Your task to perform on an android device: Go to Reddit.com Image 0: 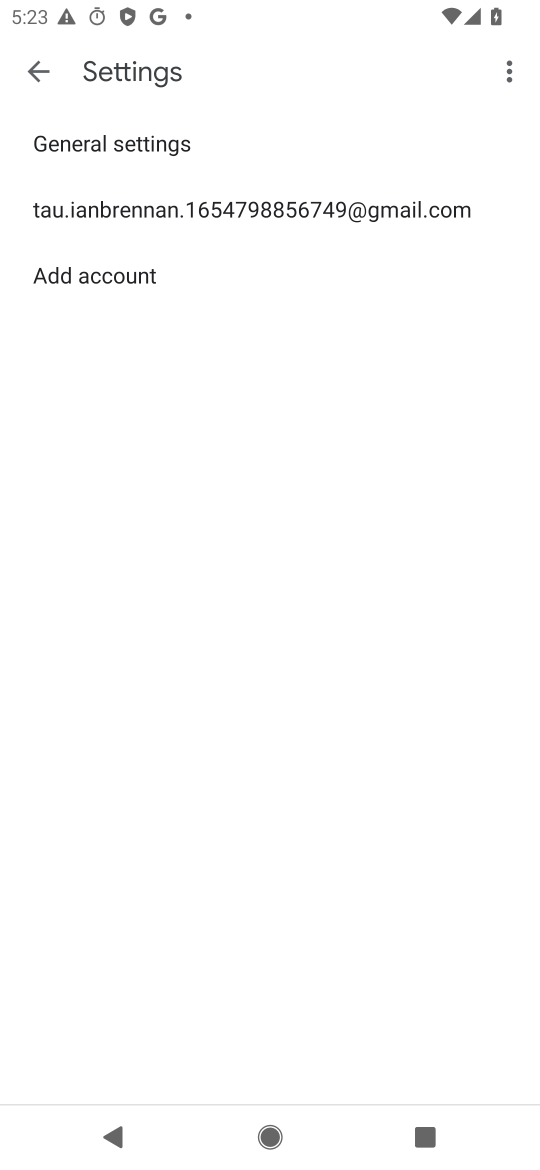
Step 0: press home button
Your task to perform on an android device: Go to Reddit.com Image 1: 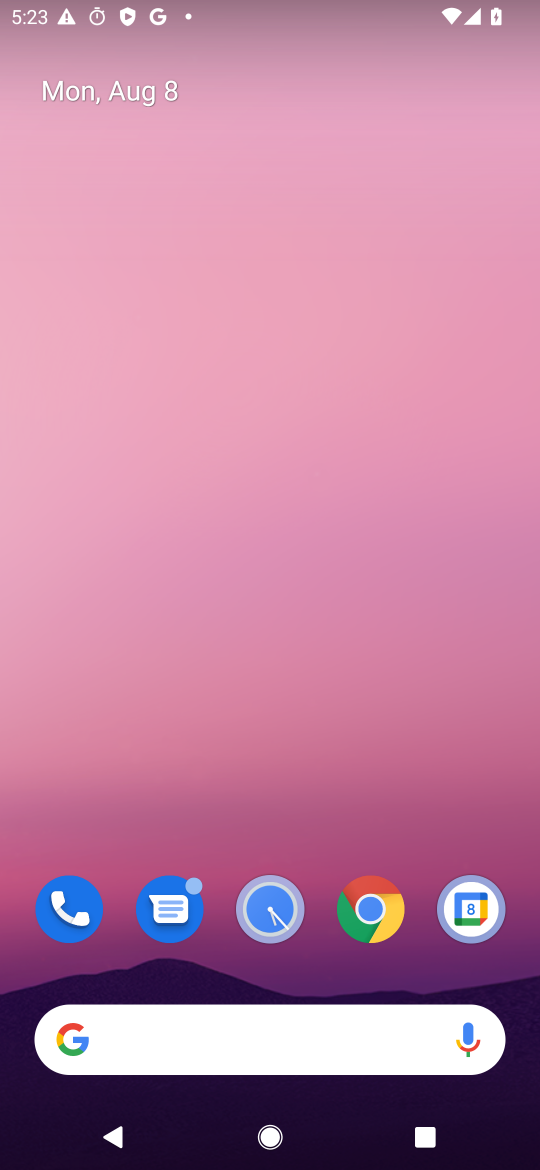
Step 1: click (376, 900)
Your task to perform on an android device: Go to Reddit.com Image 2: 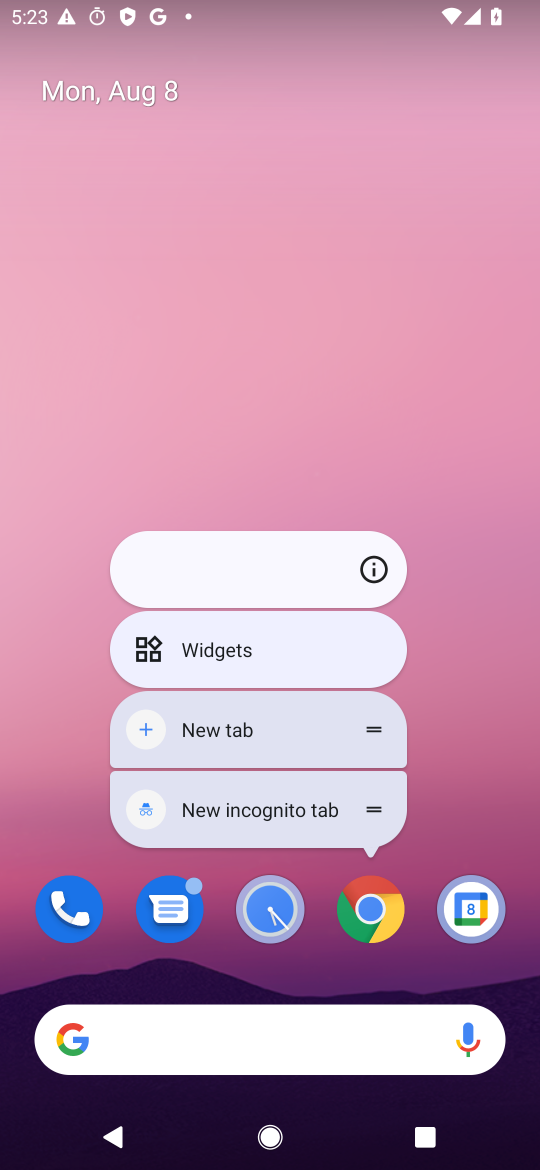
Step 2: click (369, 910)
Your task to perform on an android device: Go to Reddit.com Image 3: 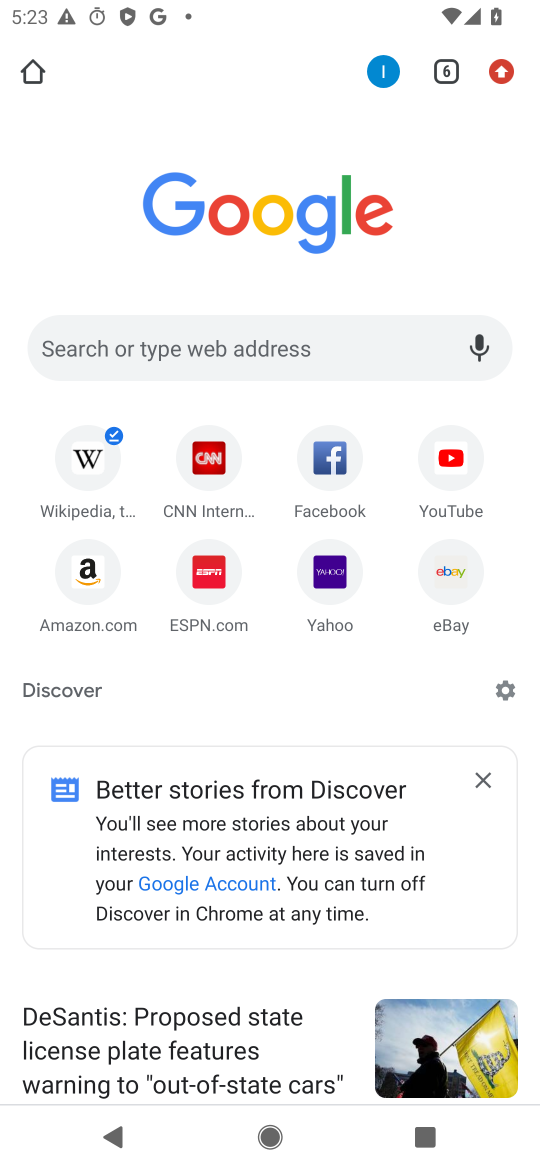
Step 3: click (126, 351)
Your task to perform on an android device: Go to Reddit.com Image 4: 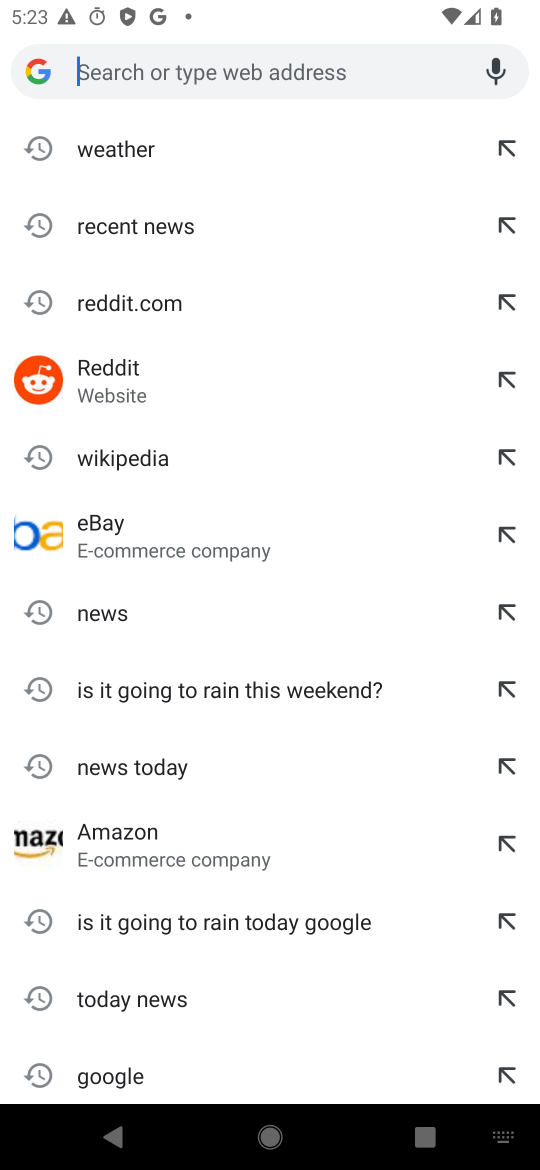
Step 4: click (131, 373)
Your task to perform on an android device: Go to Reddit.com Image 5: 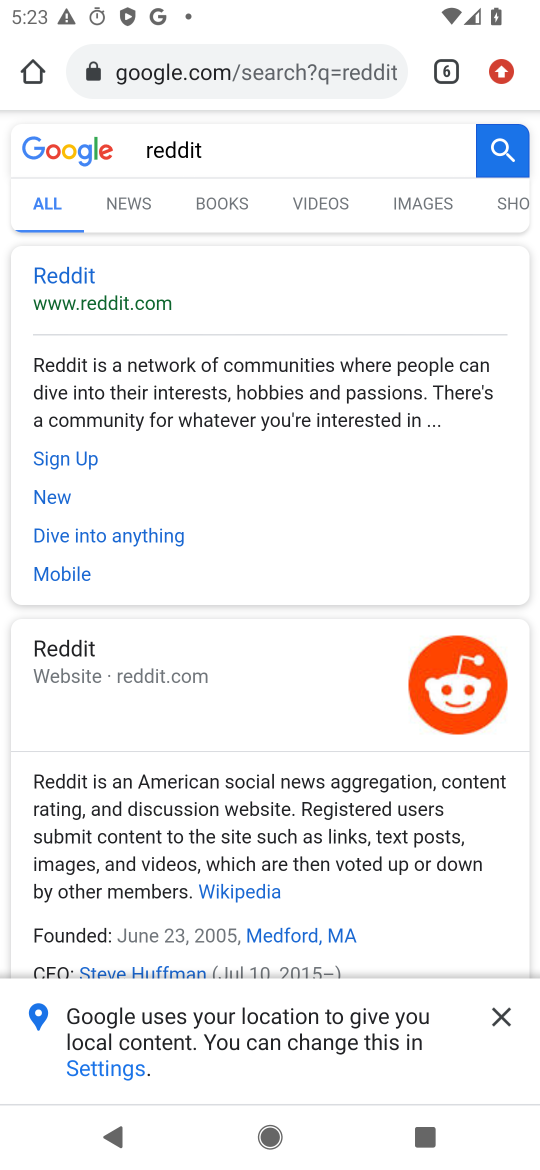
Step 5: click (93, 290)
Your task to perform on an android device: Go to Reddit.com Image 6: 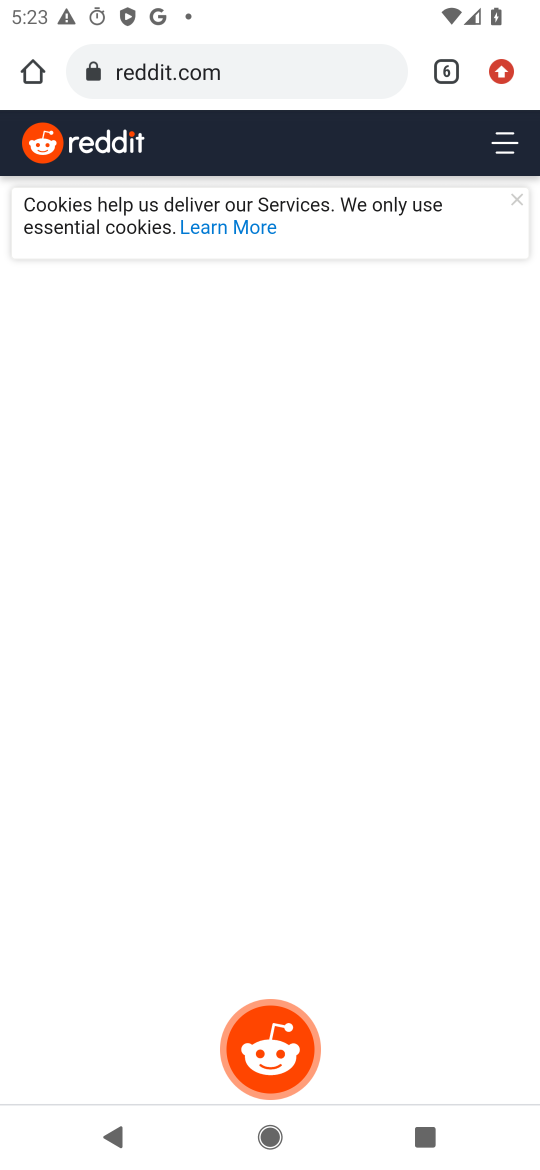
Step 6: task complete